Your task to perform on an android device: Search for vegetarian restaurants on Maps Image 0: 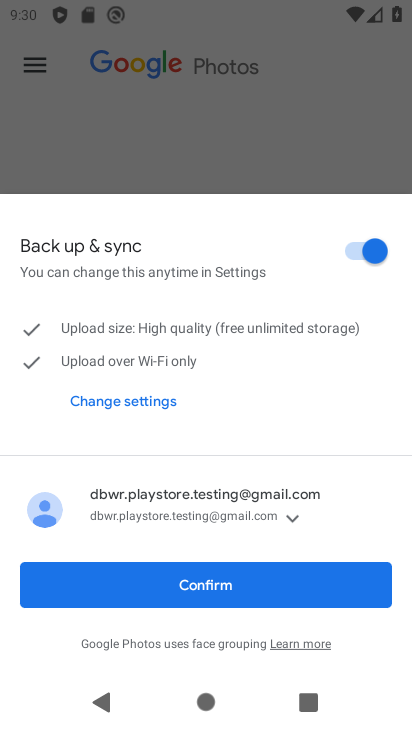
Step 0: press home button
Your task to perform on an android device: Search for vegetarian restaurants on Maps Image 1: 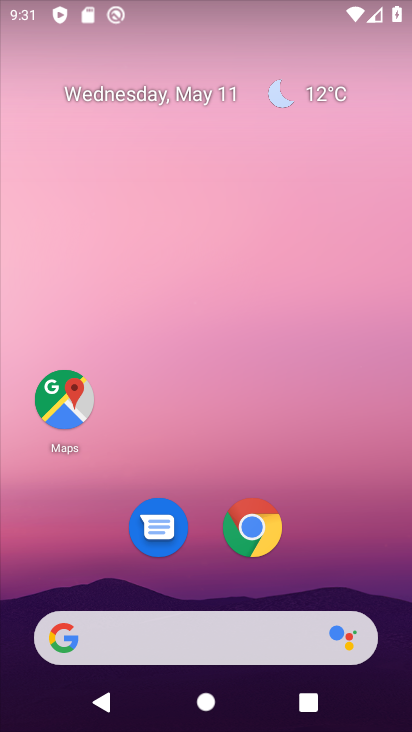
Step 1: drag from (340, 584) to (360, 13)
Your task to perform on an android device: Search for vegetarian restaurants on Maps Image 2: 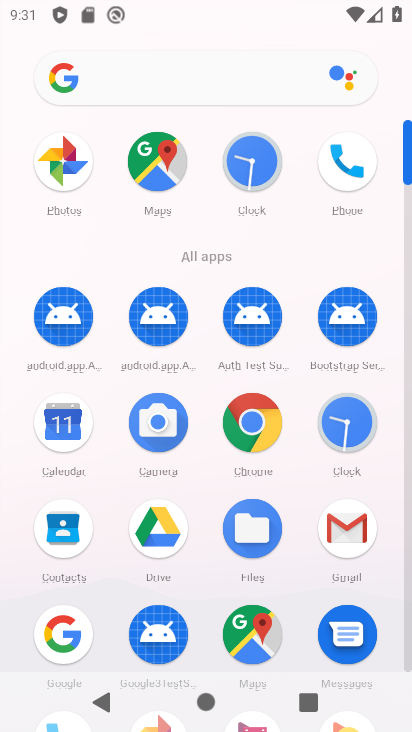
Step 2: click (262, 627)
Your task to perform on an android device: Search for vegetarian restaurants on Maps Image 3: 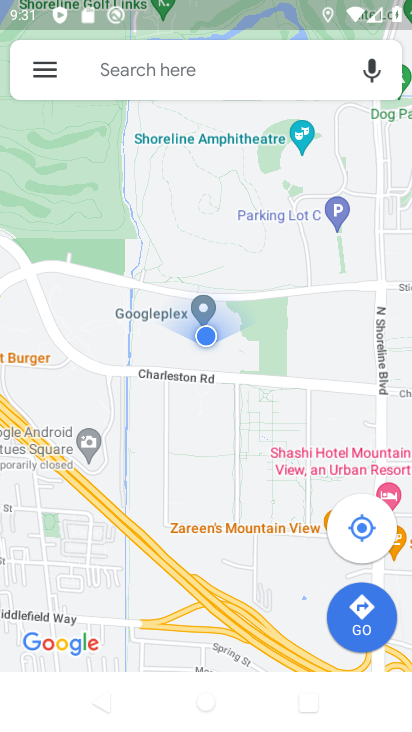
Step 3: click (192, 83)
Your task to perform on an android device: Search for vegetarian restaurants on Maps Image 4: 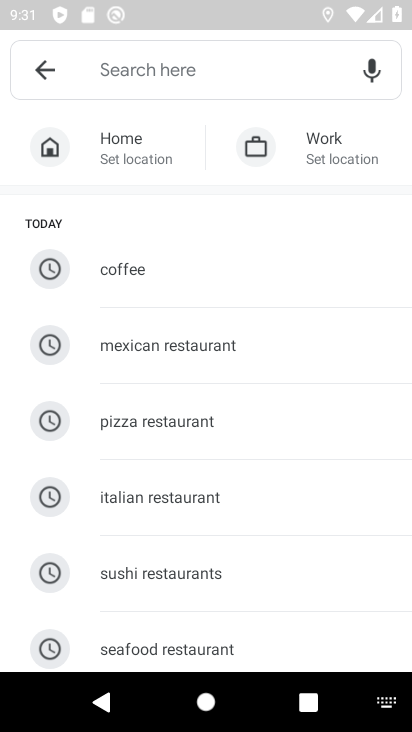
Step 4: drag from (193, 619) to (244, 223)
Your task to perform on an android device: Search for vegetarian restaurants on Maps Image 5: 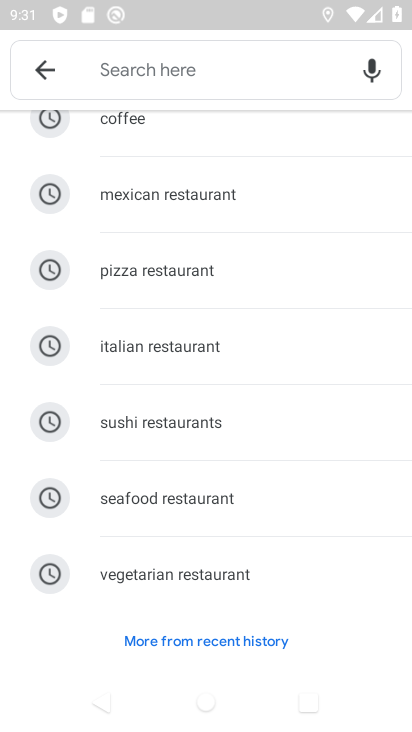
Step 5: click (193, 575)
Your task to perform on an android device: Search for vegetarian restaurants on Maps Image 6: 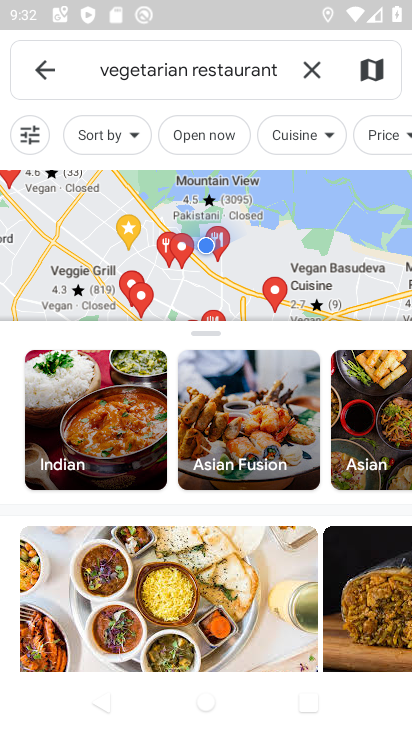
Step 6: task complete